Your task to perform on an android device: Go to Android settings Image 0: 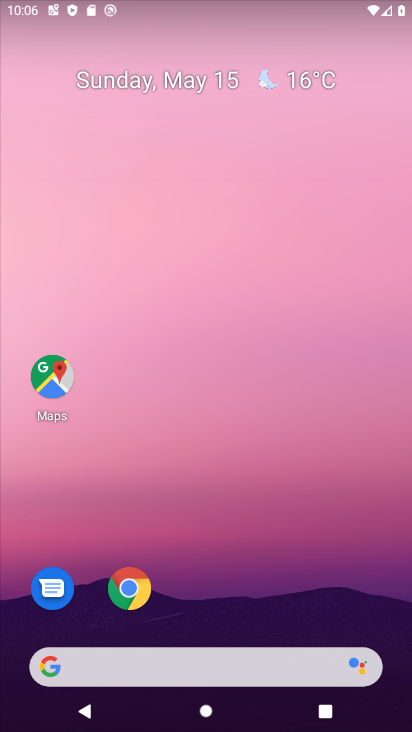
Step 0: drag from (208, 527) to (274, 136)
Your task to perform on an android device: Go to Android settings Image 1: 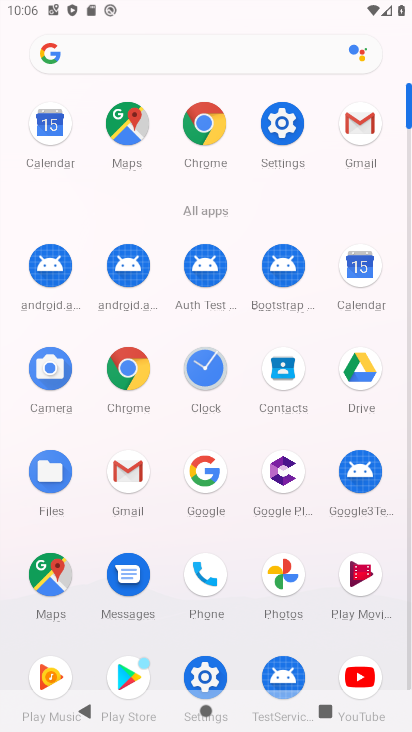
Step 1: click (280, 133)
Your task to perform on an android device: Go to Android settings Image 2: 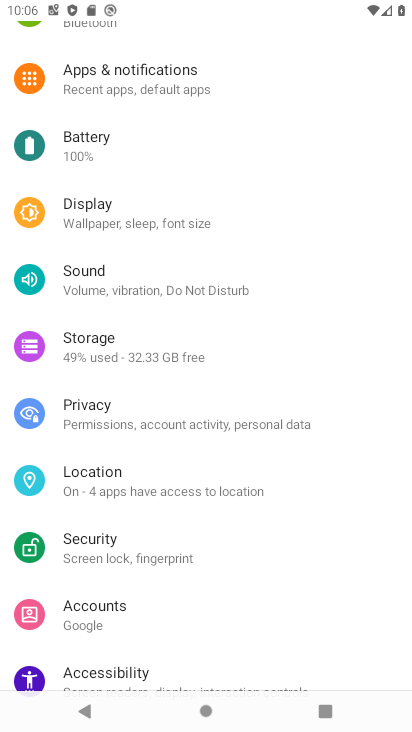
Step 2: task complete